Your task to perform on an android device: see sites visited before in the chrome app Image 0: 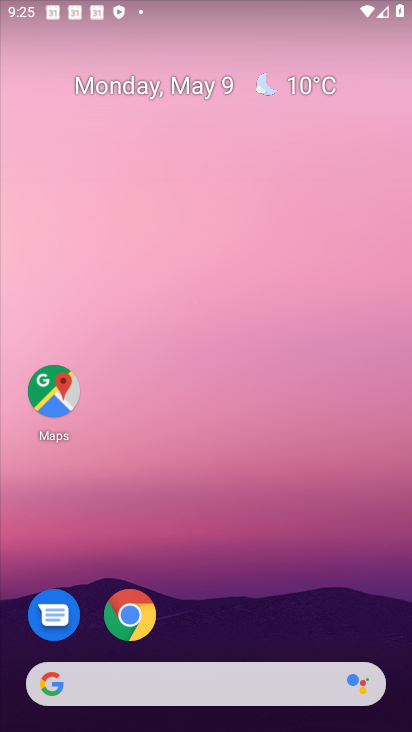
Step 0: click (123, 629)
Your task to perform on an android device: see sites visited before in the chrome app Image 1: 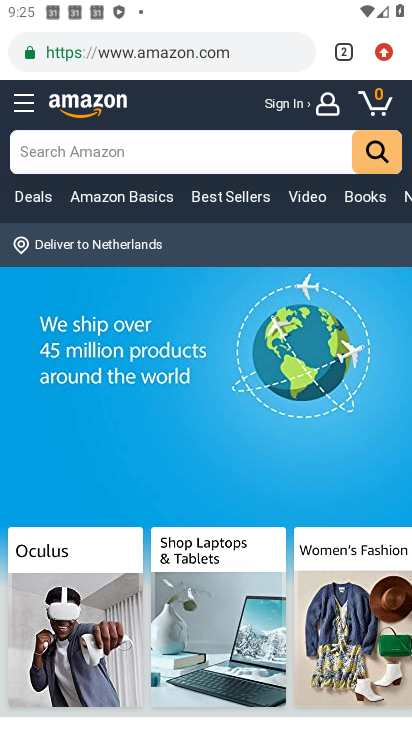
Step 1: click (386, 48)
Your task to perform on an android device: see sites visited before in the chrome app Image 2: 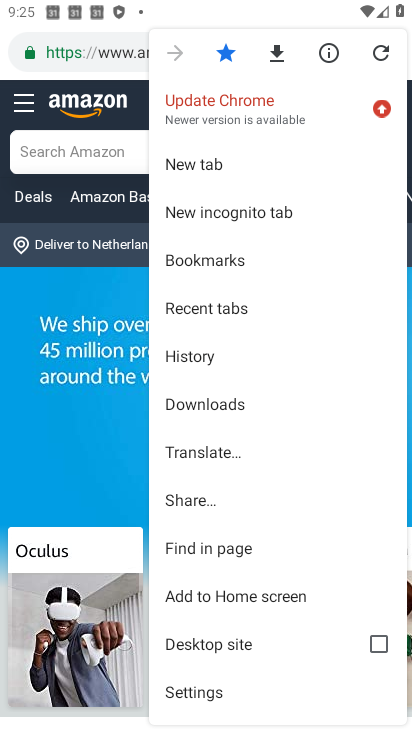
Step 2: click (224, 359)
Your task to perform on an android device: see sites visited before in the chrome app Image 3: 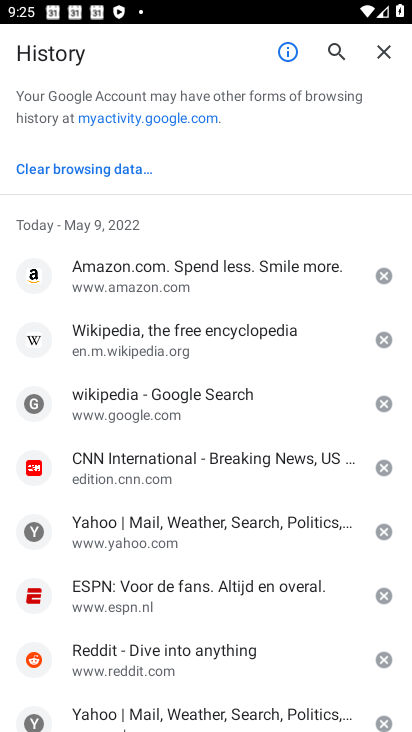
Step 3: task complete